Your task to perform on an android device: change the clock style Image 0: 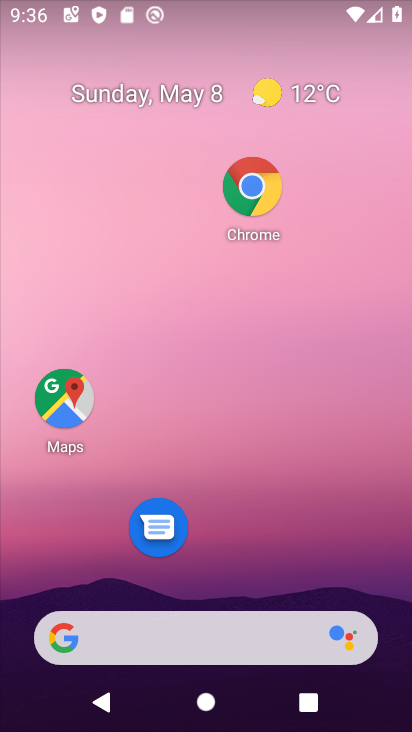
Step 0: drag from (290, 491) to (338, 296)
Your task to perform on an android device: change the clock style Image 1: 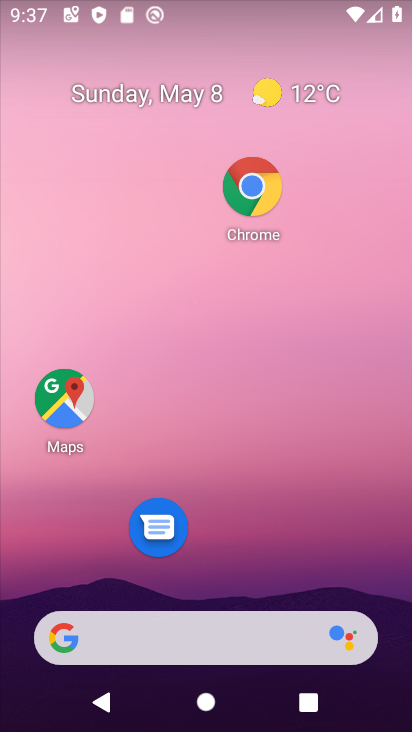
Step 1: drag from (264, 582) to (341, 306)
Your task to perform on an android device: change the clock style Image 2: 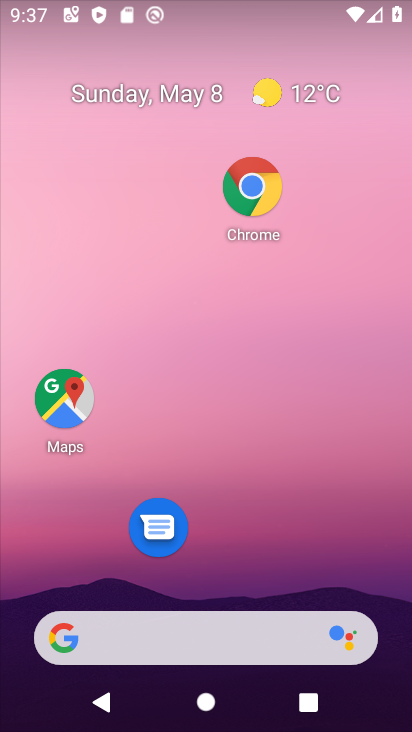
Step 2: drag from (298, 548) to (348, 267)
Your task to perform on an android device: change the clock style Image 3: 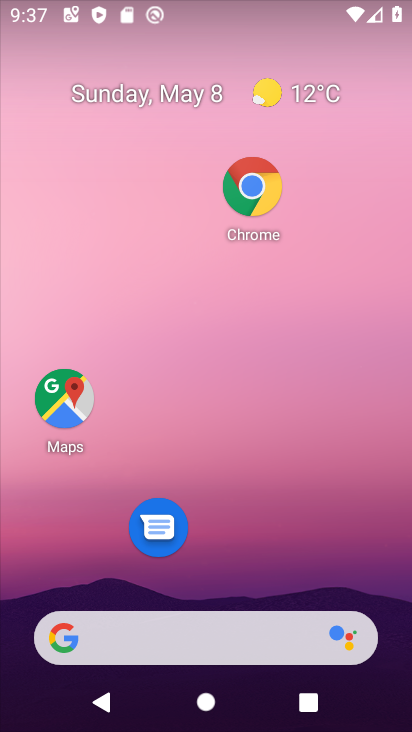
Step 3: drag from (287, 571) to (306, 252)
Your task to perform on an android device: change the clock style Image 4: 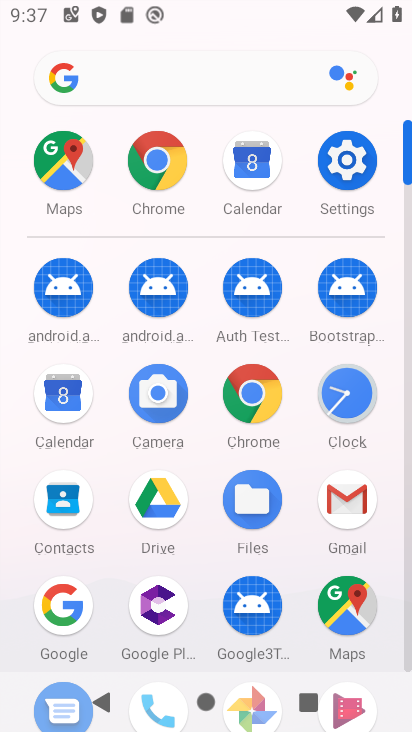
Step 4: click (351, 381)
Your task to perform on an android device: change the clock style Image 5: 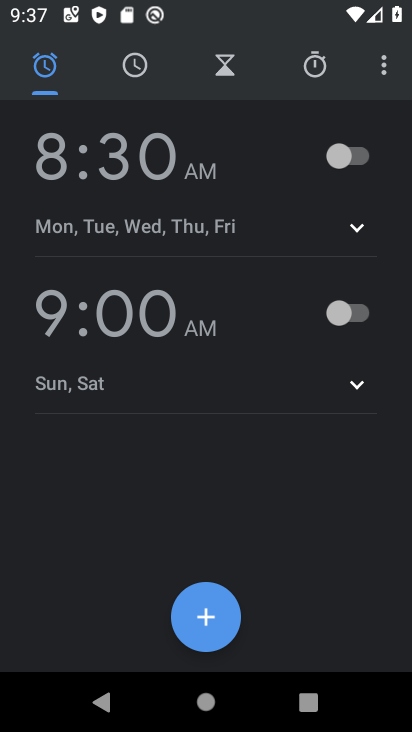
Step 5: click (379, 61)
Your task to perform on an android device: change the clock style Image 6: 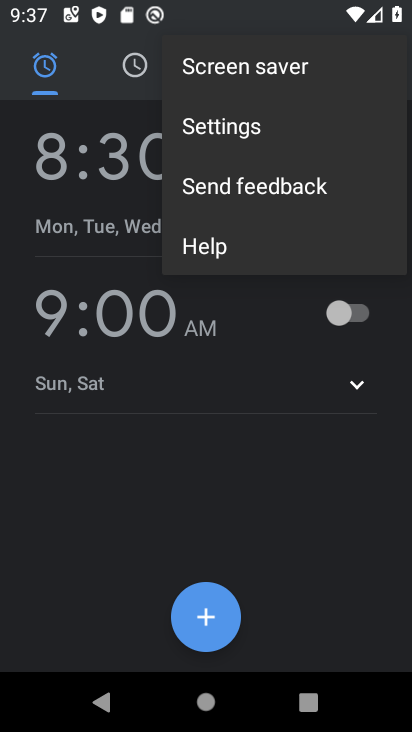
Step 6: click (272, 129)
Your task to perform on an android device: change the clock style Image 7: 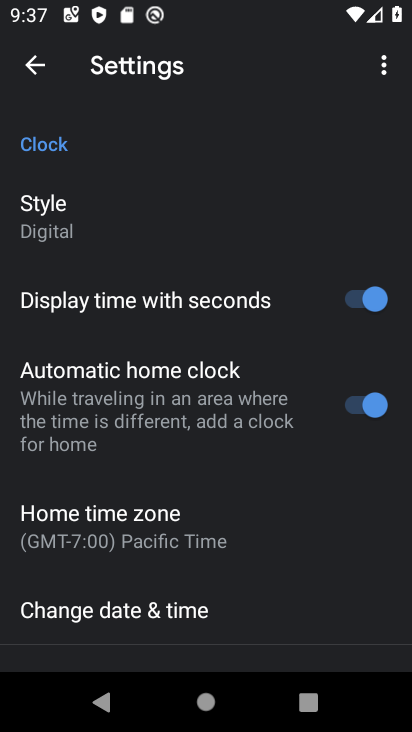
Step 7: click (85, 197)
Your task to perform on an android device: change the clock style Image 8: 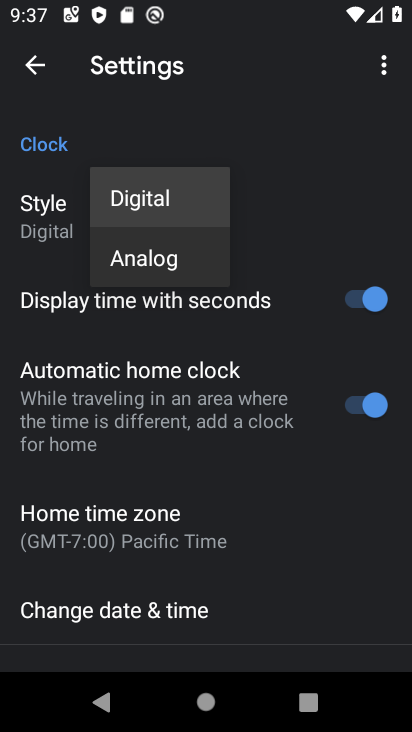
Step 8: click (150, 255)
Your task to perform on an android device: change the clock style Image 9: 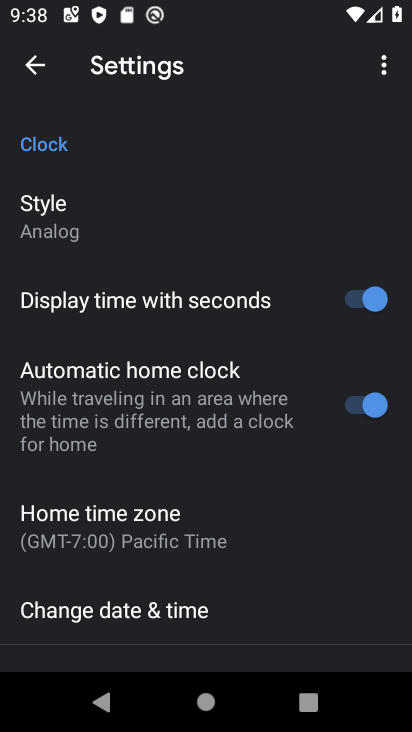
Step 9: task complete